Your task to perform on an android device: toggle location history Image 0: 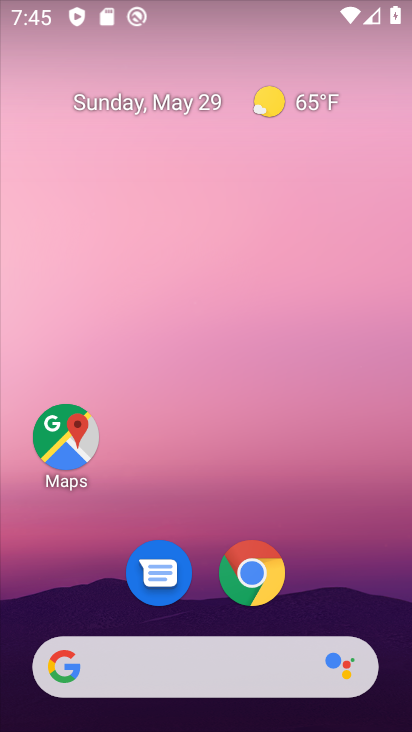
Step 0: drag from (219, 489) to (221, 221)
Your task to perform on an android device: toggle location history Image 1: 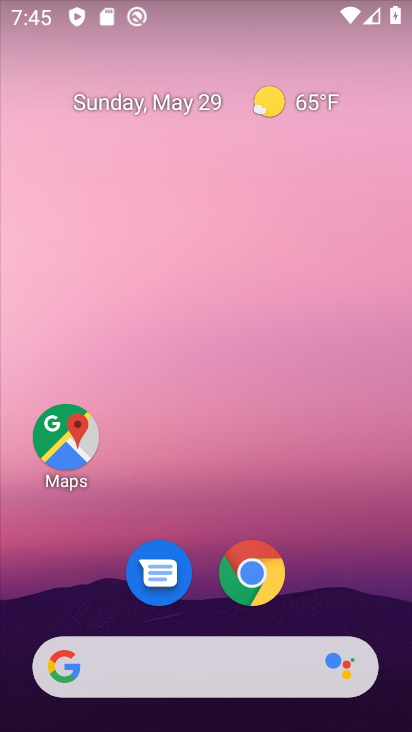
Step 1: drag from (207, 616) to (215, 200)
Your task to perform on an android device: toggle location history Image 2: 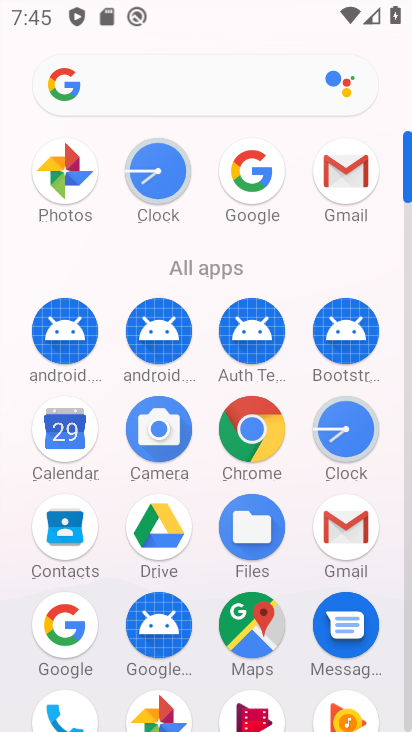
Step 2: drag from (190, 592) to (195, 265)
Your task to perform on an android device: toggle location history Image 3: 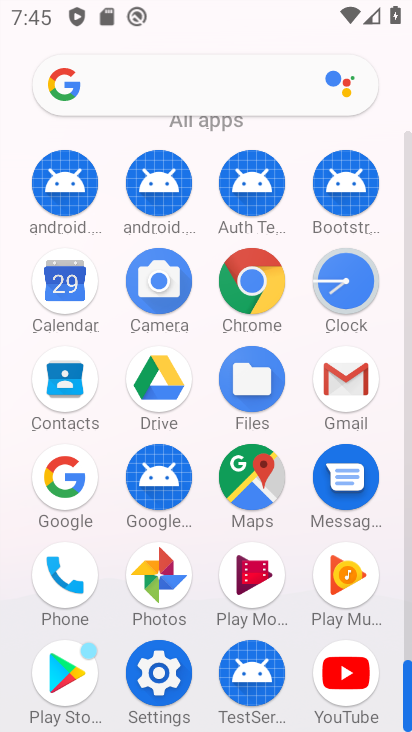
Step 3: click (144, 673)
Your task to perform on an android device: toggle location history Image 4: 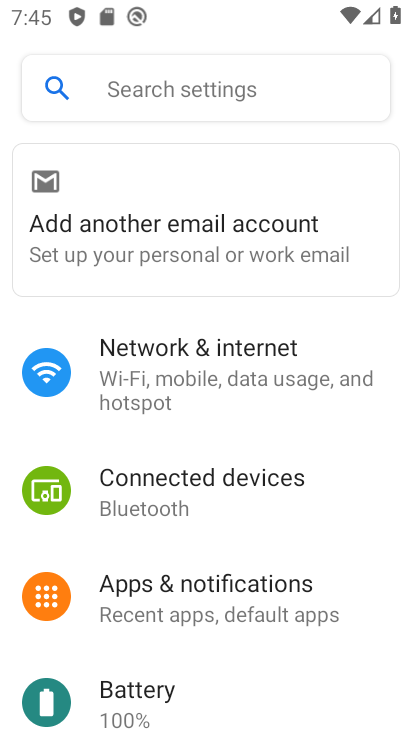
Step 4: drag from (240, 590) to (245, 253)
Your task to perform on an android device: toggle location history Image 5: 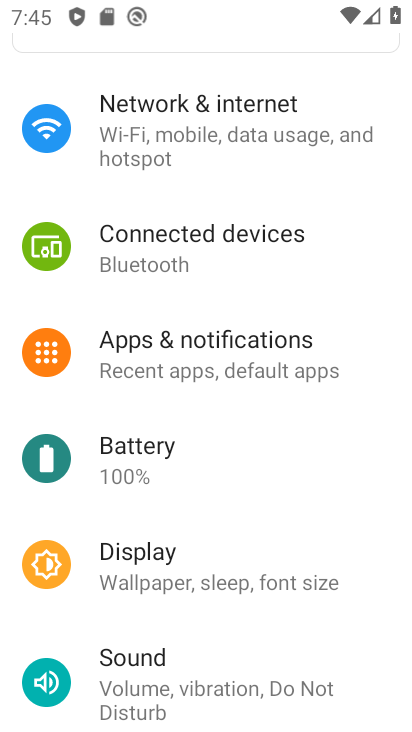
Step 5: drag from (235, 620) to (238, 354)
Your task to perform on an android device: toggle location history Image 6: 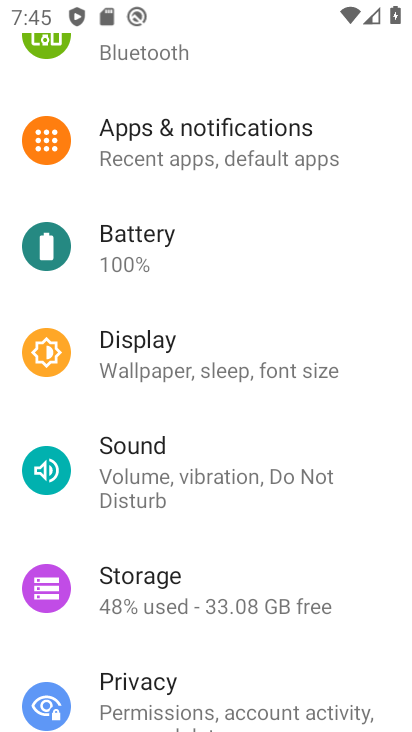
Step 6: drag from (215, 631) to (231, 412)
Your task to perform on an android device: toggle location history Image 7: 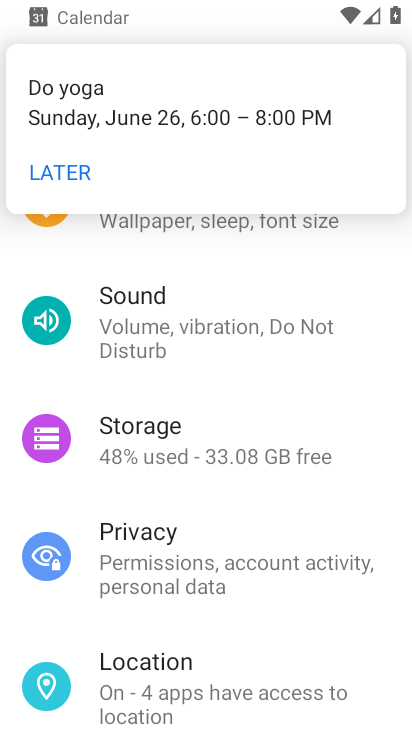
Step 7: click (220, 687)
Your task to perform on an android device: toggle location history Image 8: 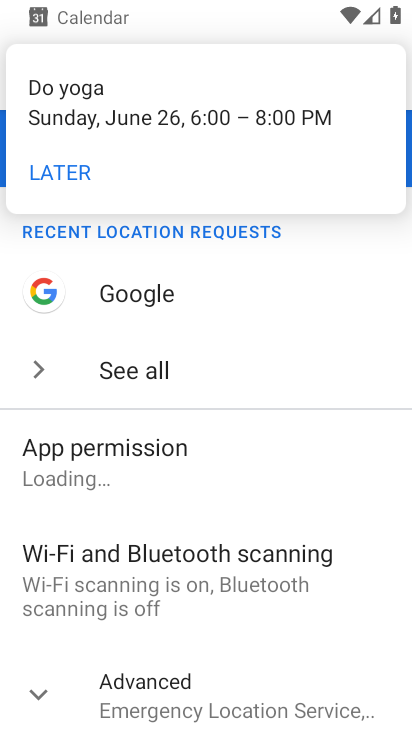
Step 8: click (58, 175)
Your task to perform on an android device: toggle location history Image 9: 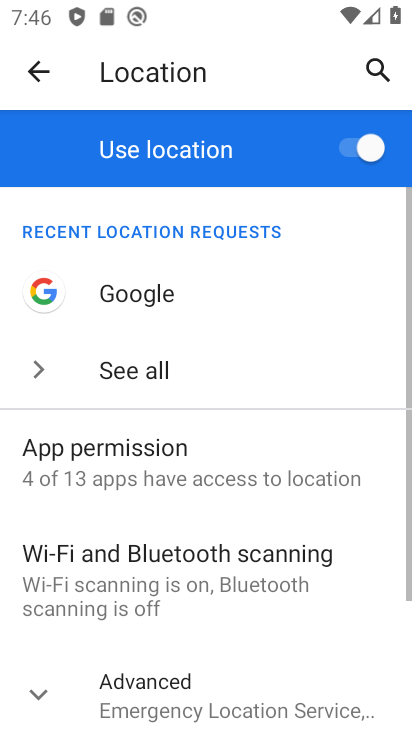
Step 9: drag from (249, 639) to (264, 342)
Your task to perform on an android device: toggle location history Image 10: 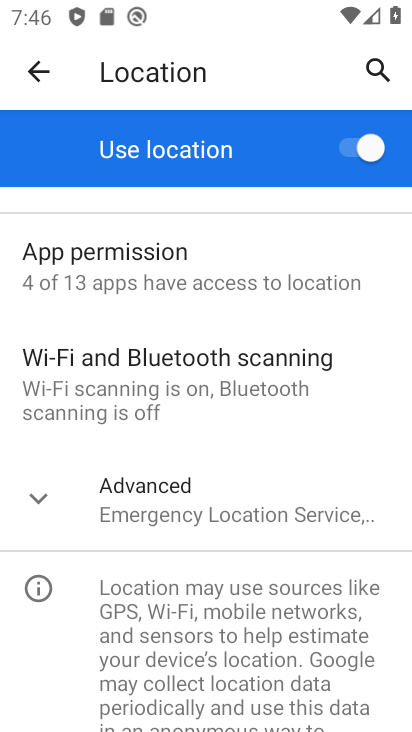
Step 10: click (250, 516)
Your task to perform on an android device: toggle location history Image 11: 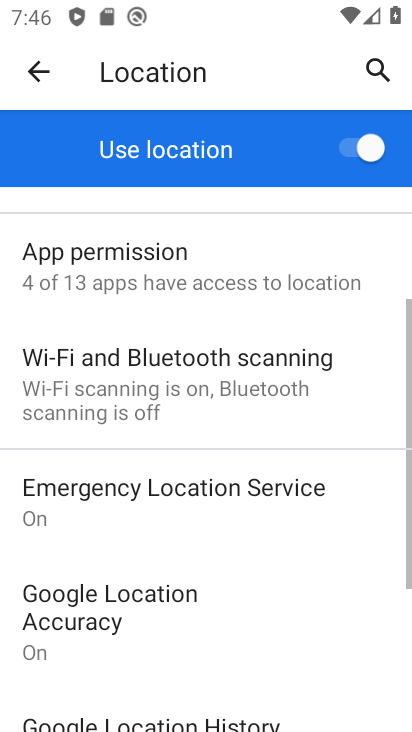
Step 11: drag from (262, 634) to (244, 343)
Your task to perform on an android device: toggle location history Image 12: 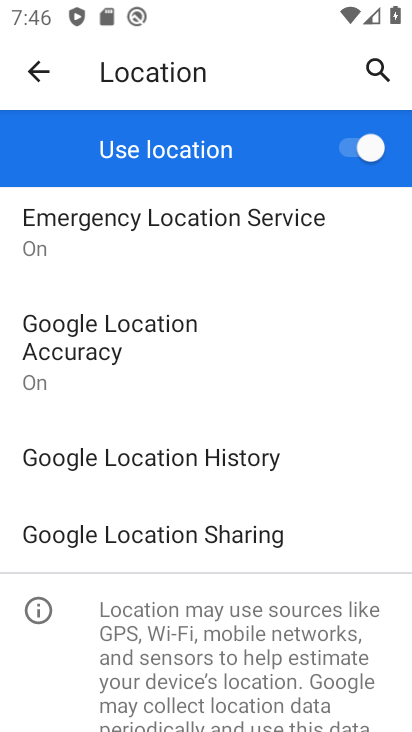
Step 12: click (244, 443)
Your task to perform on an android device: toggle location history Image 13: 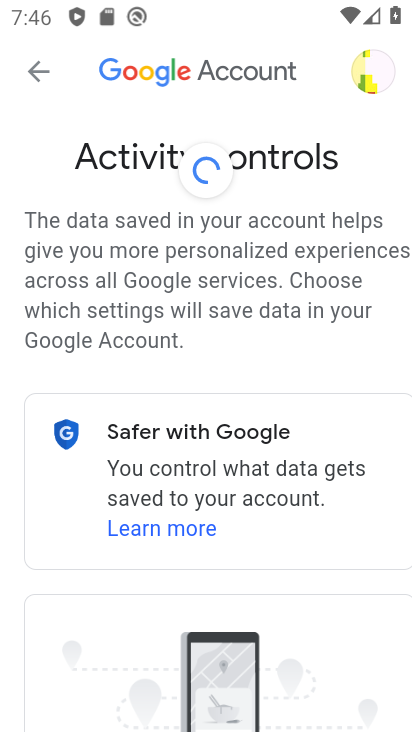
Step 13: drag from (257, 588) to (242, 255)
Your task to perform on an android device: toggle location history Image 14: 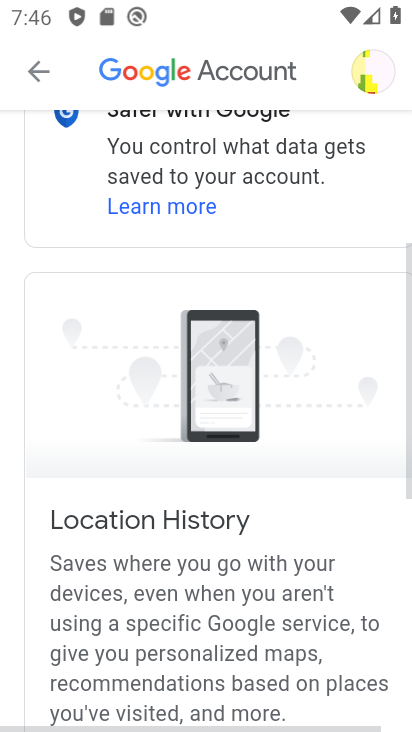
Step 14: drag from (227, 587) to (251, 248)
Your task to perform on an android device: toggle location history Image 15: 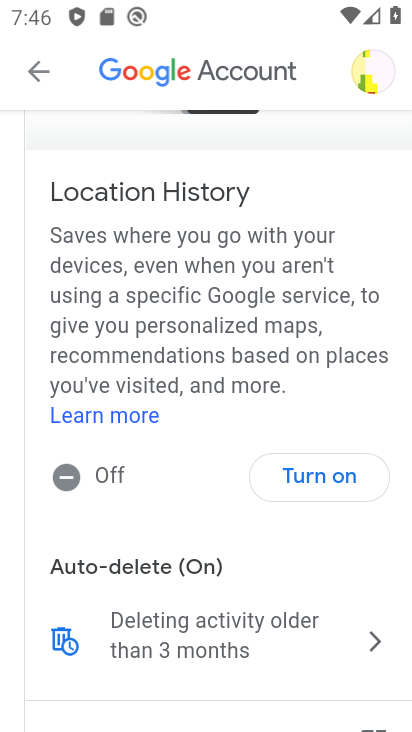
Step 15: click (303, 474)
Your task to perform on an android device: toggle location history Image 16: 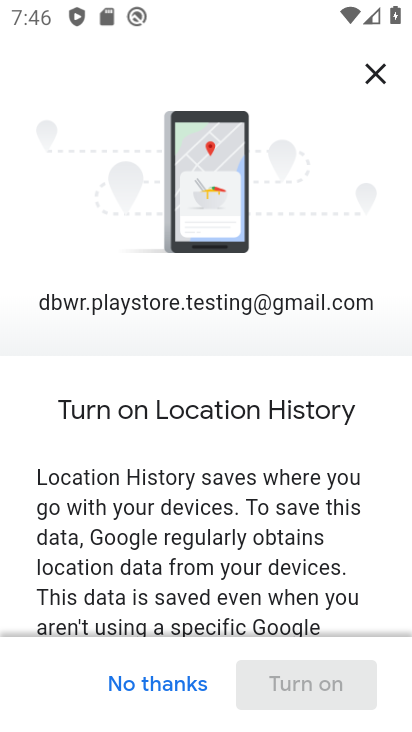
Step 16: drag from (226, 595) to (228, 254)
Your task to perform on an android device: toggle location history Image 17: 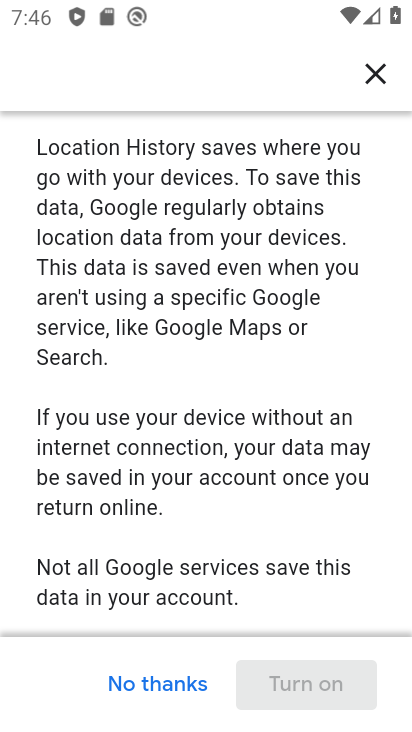
Step 17: drag from (234, 559) to (237, 260)
Your task to perform on an android device: toggle location history Image 18: 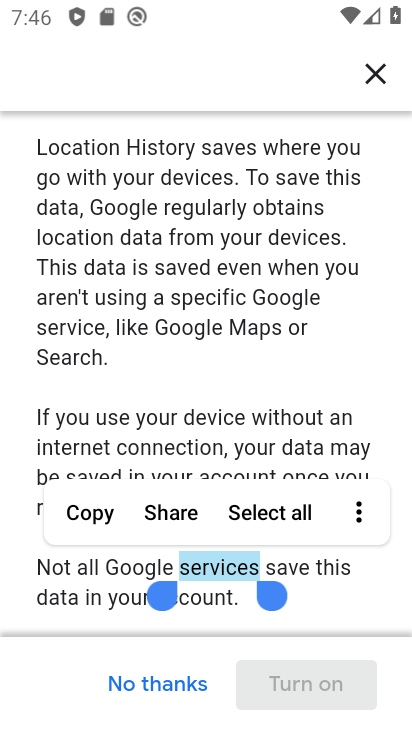
Step 18: click (242, 400)
Your task to perform on an android device: toggle location history Image 19: 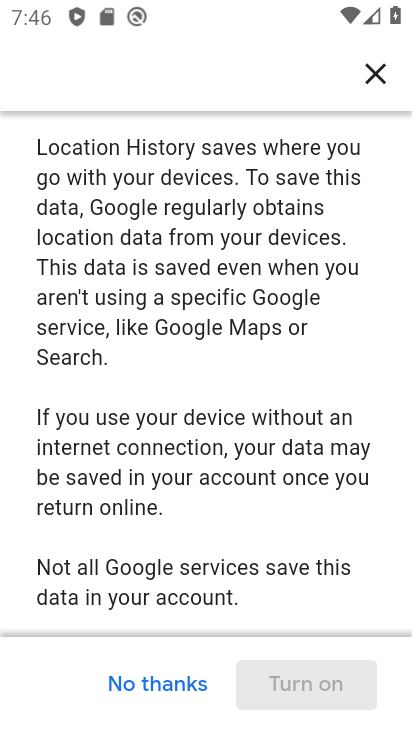
Step 19: drag from (249, 581) to (241, 276)
Your task to perform on an android device: toggle location history Image 20: 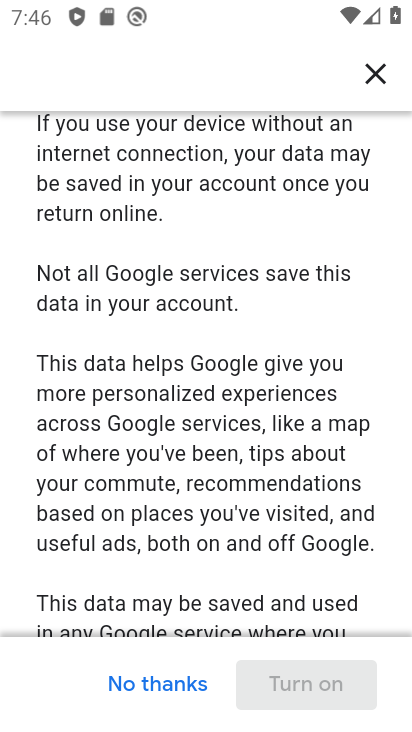
Step 20: drag from (276, 587) to (274, 268)
Your task to perform on an android device: toggle location history Image 21: 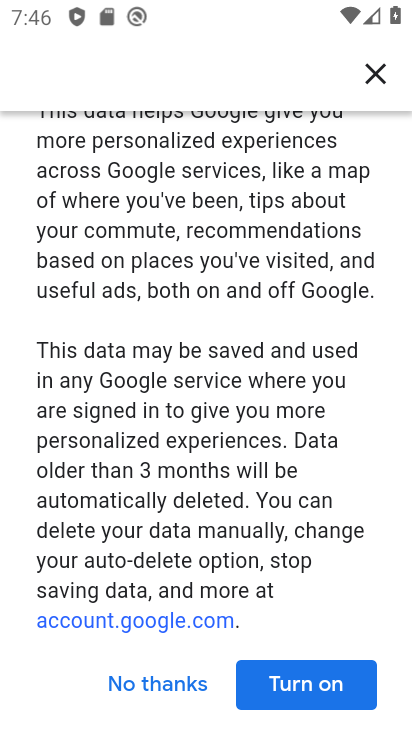
Step 21: click (321, 679)
Your task to perform on an android device: toggle location history Image 22: 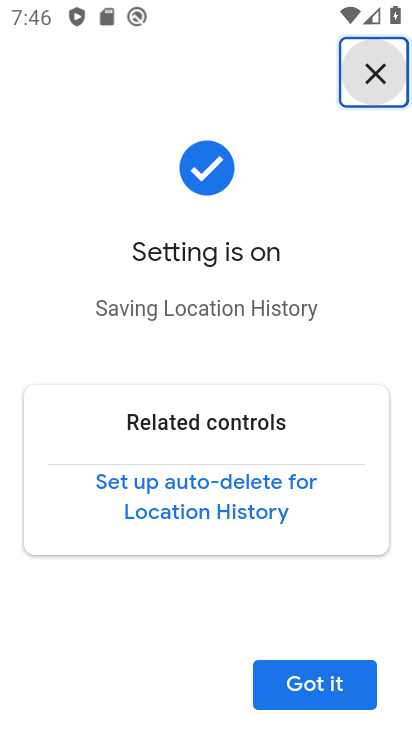
Step 22: task complete